Your task to perform on an android device: turn off improve location accuracy Image 0: 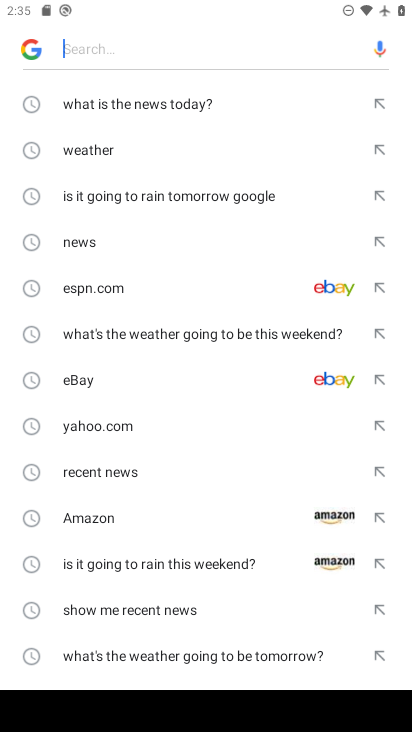
Step 0: press home button
Your task to perform on an android device: turn off improve location accuracy Image 1: 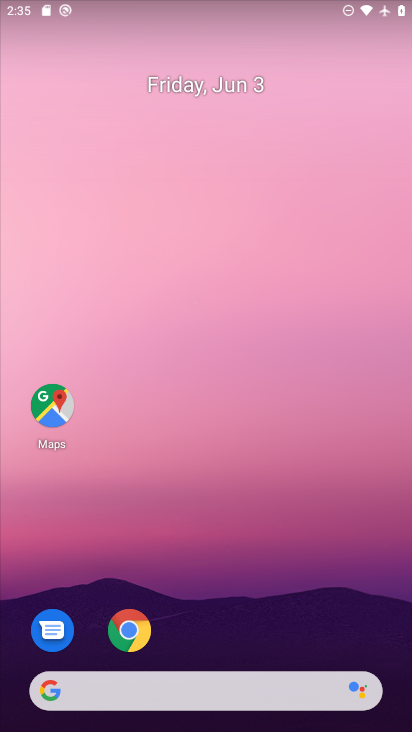
Step 1: drag from (238, 727) to (241, 64)
Your task to perform on an android device: turn off improve location accuracy Image 2: 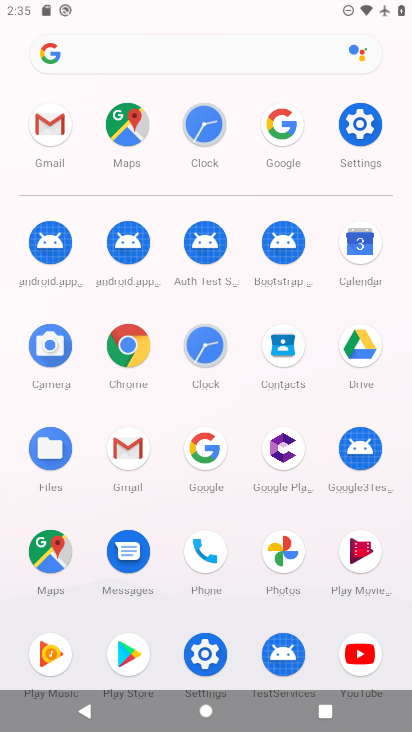
Step 2: click (366, 122)
Your task to perform on an android device: turn off improve location accuracy Image 3: 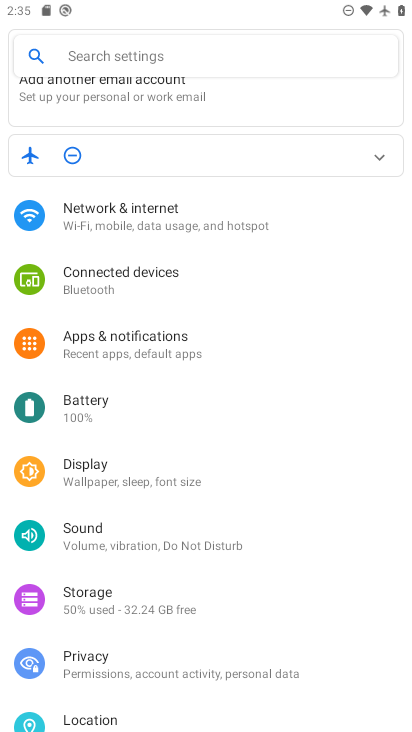
Step 3: click (82, 718)
Your task to perform on an android device: turn off improve location accuracy Image 4: 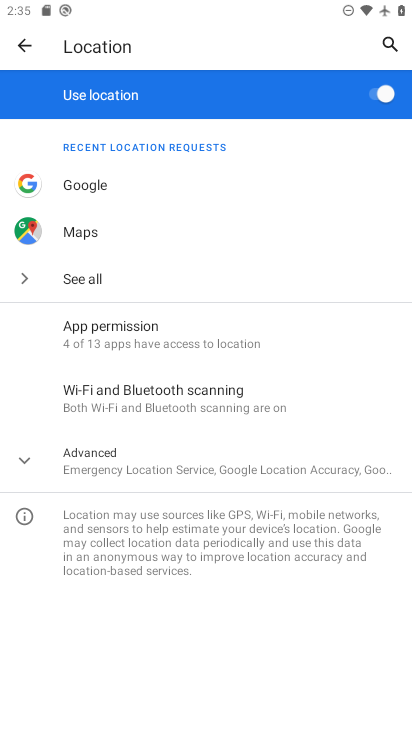
Step 4: click (87, 460)
Your task to perform on an android device: turn off improve location accuracy Image 5: 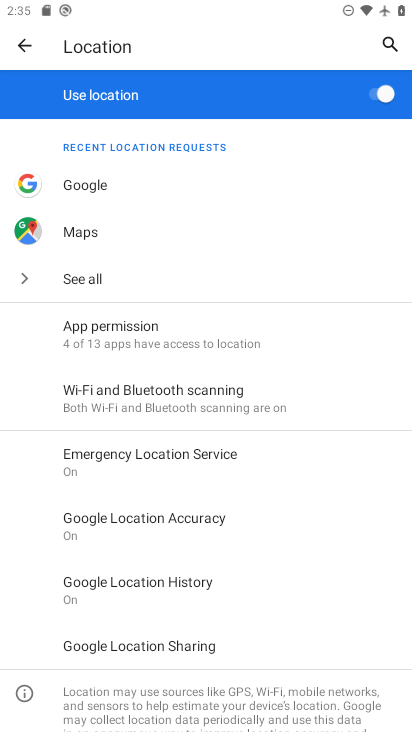
Step 5: click (161, 515)
Your task to perform on an android device: turn off improve location accuracy Image 6: 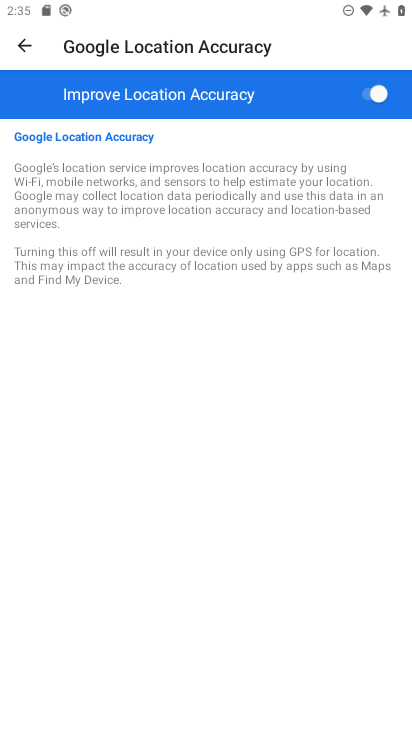
Step 6: click (364, 92)
Your task to perform on an android device: turn off improve location accuracy Image 7: 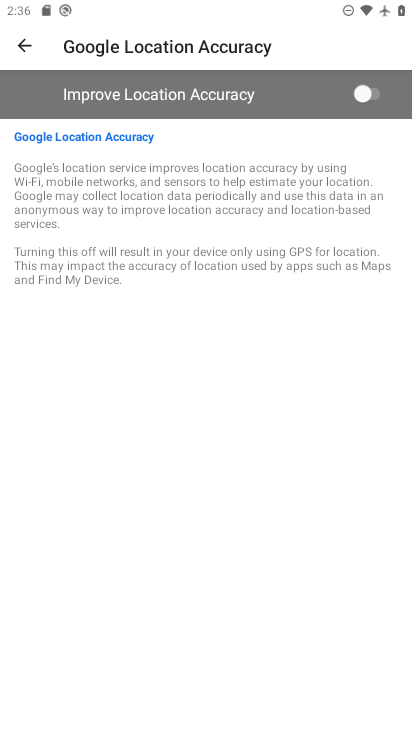
Step 7: task complete